Your task to perform on an android device: change text size in settings app Image 0: 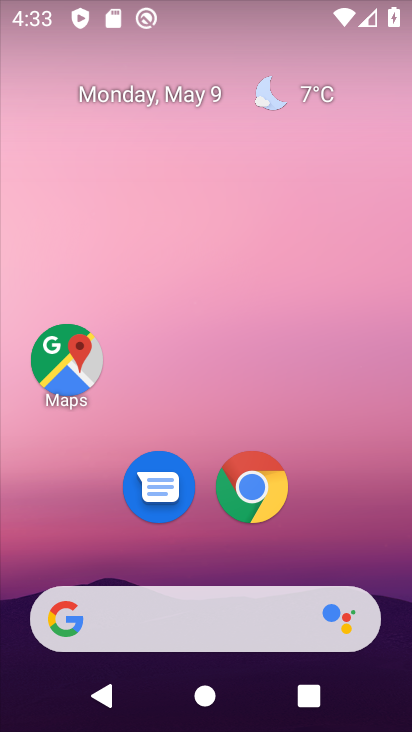
Step 0: drag from (210, 469) to (245, 53)
Your task to perform on an android device: change text size in settings app Image 1: 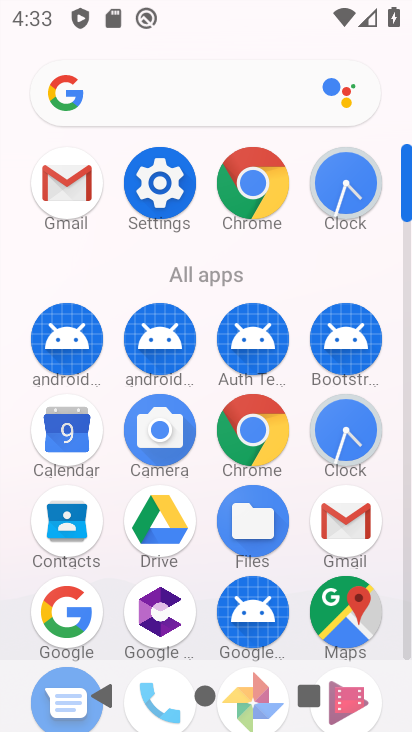
Step 1: click (162, 189)
Your task to perform on an android device: change text size in settings app Image 2: 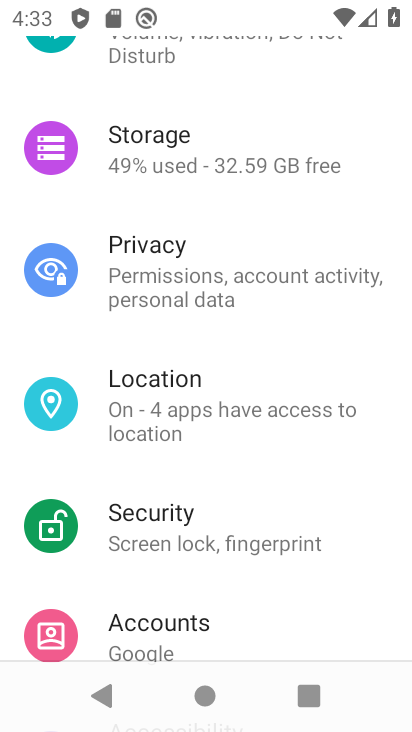
Step 2: drag from (218, 259) to (216, 584)
Your task to perform on an android device: change text size in settings app Image 3: 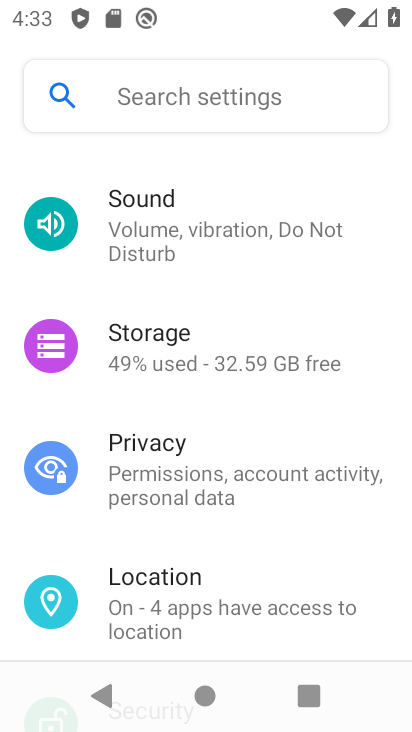
Step 3: drag from (211, 193) to (215, 528)
Your task to perform on an android device: change text size in settings app Image 4: 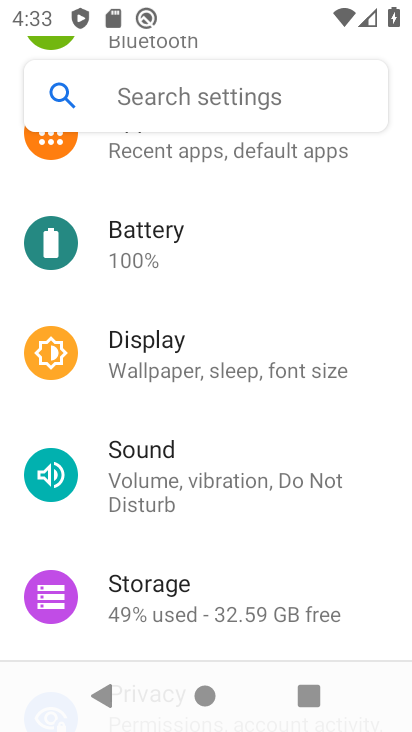
Step 4: click (208, 356)
Your task to perform on an android device: change text size in settings app Image 5: 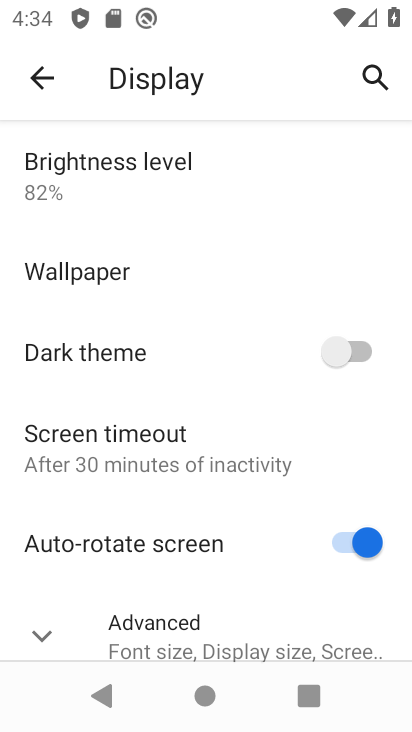
Step 5: click (183, 634)
Your task to perform on an android device: change text size in settings app Image 6: 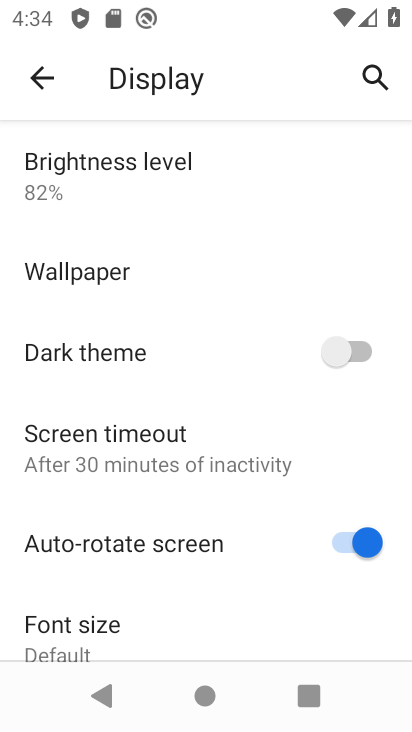
Step 6: drag from (203, 628) to (244, 211)
Your task to perform on an android device: change text size in settings app Image 7: 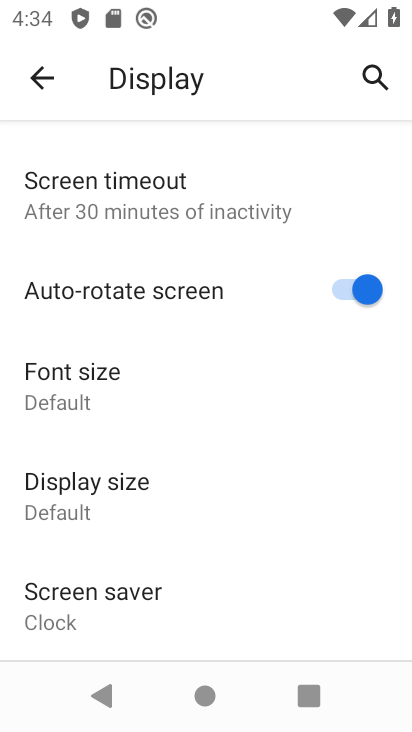
Step 7: click (116, 391)
Your task to perform on an android device: change text size in settings app Image 8: 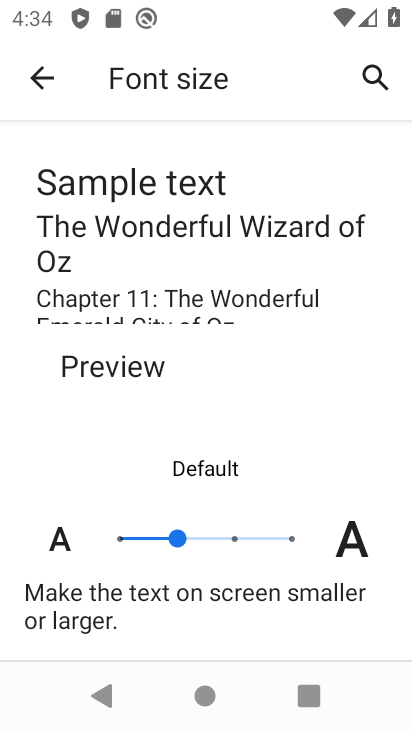
Step 8: click (120, 541)
Your task to perform on an android device: change text size in settings app Image 9: 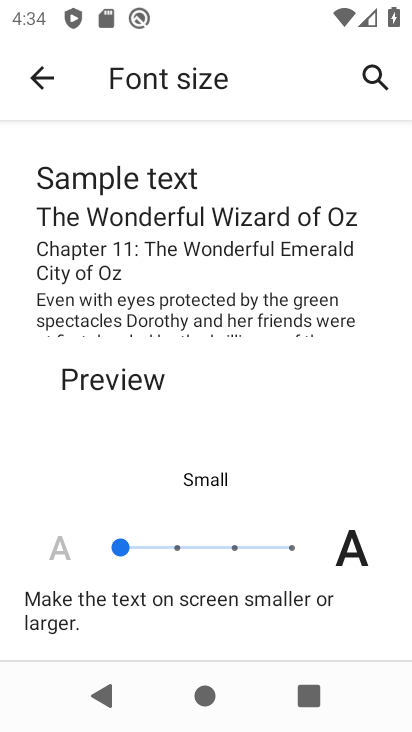
Step 9: task complete